Your task to perform on an android device: What's the weather today? Image 0: 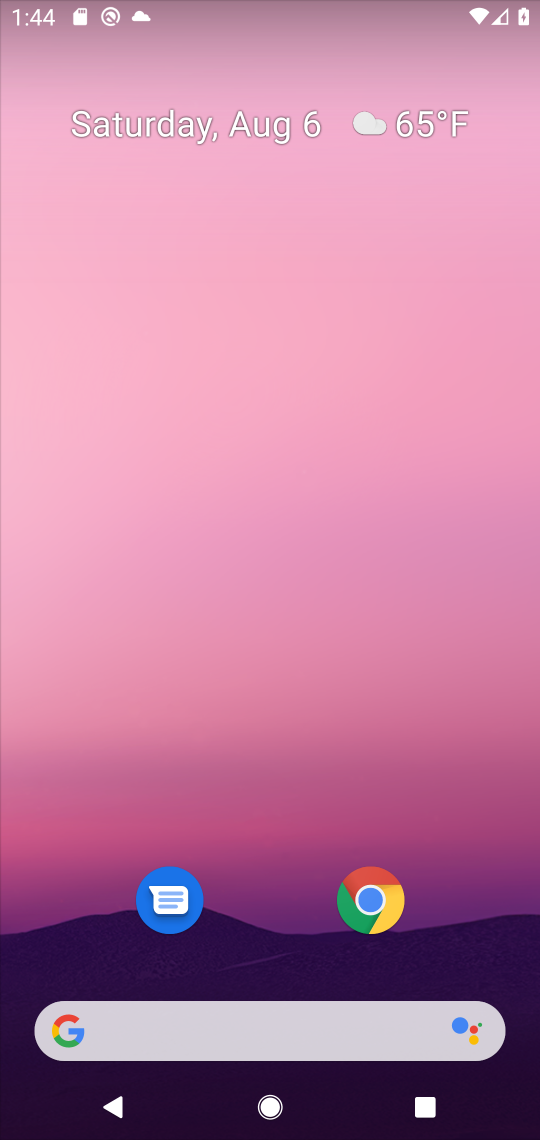
Step 0: press home button
Your task to perform on an android device: What's the weather today? Image 1: 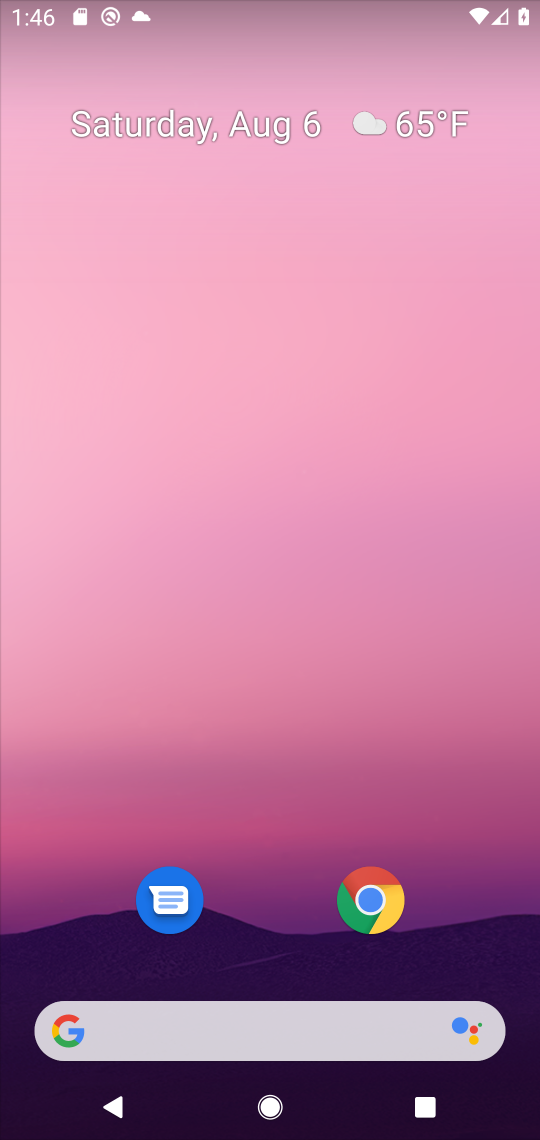
Step 1: click (65, 1032)
Your task to perform on an android device: What's the weather today? Image 2: 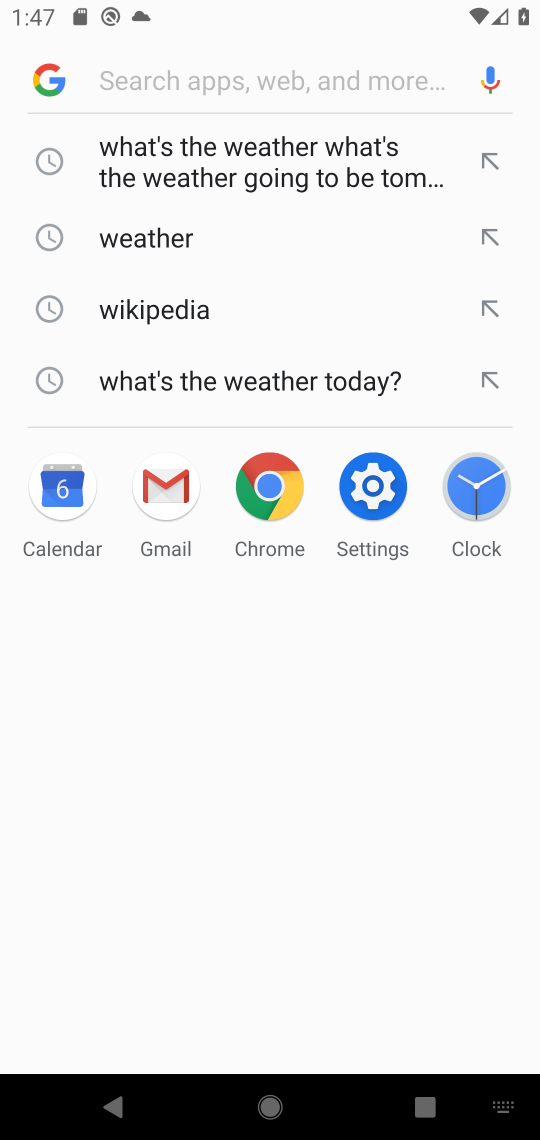
Step 2: type "weather today?"
Your task to perform on an android device: What's the weather today? Image 3: 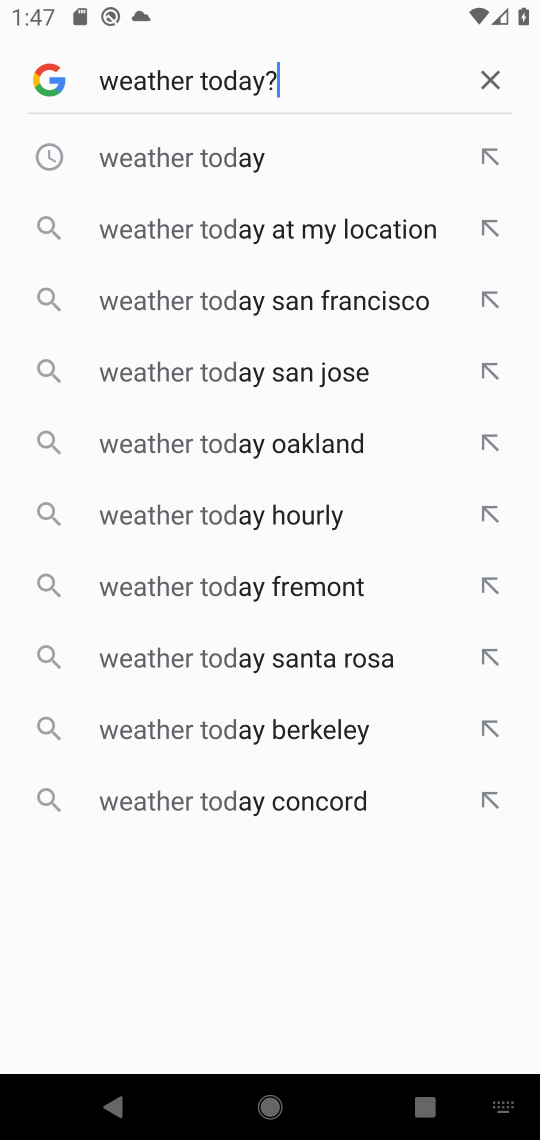
Step 3: press enter
Your task to perform on an android device: What's the weather today? Image 4: 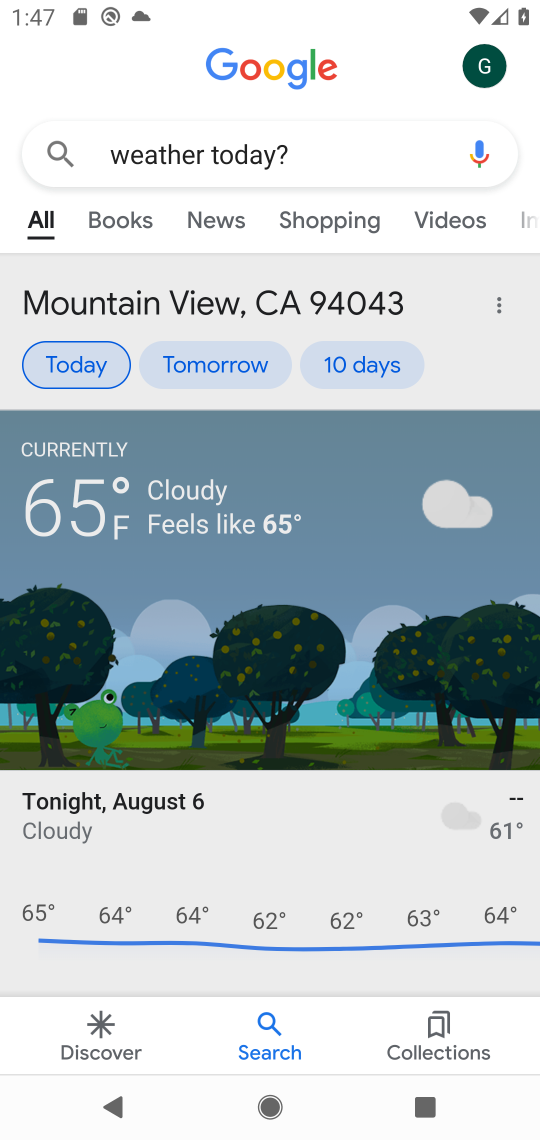
Step 4: task complete